Your task to perform on an android device: Open the stopwatch Image 0: 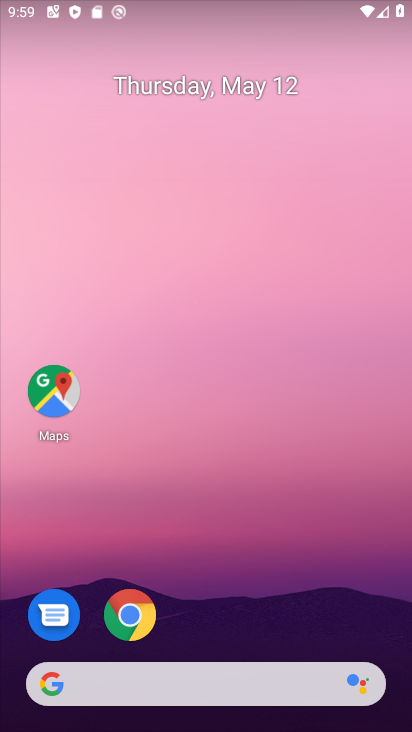
Step 0: drag from (218, 726) to (220, 228)
Your task to perform on an android device: Open the stopwatch Image 1: 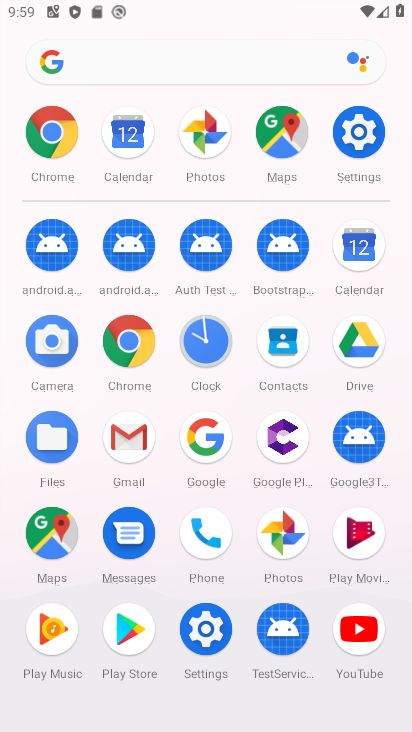
Step 1: click (203, 340)
Your task to perform on an android device: Open the stopwatch Image 2: 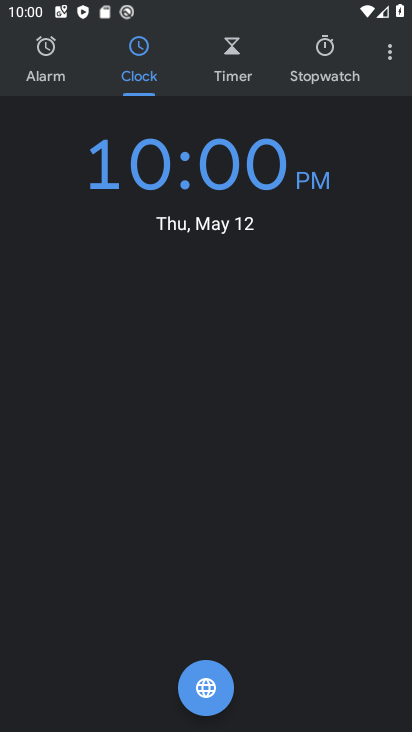
Step 2: click (328, 55)
Your task to perform on an android device: Open the stopwatch Image 3: 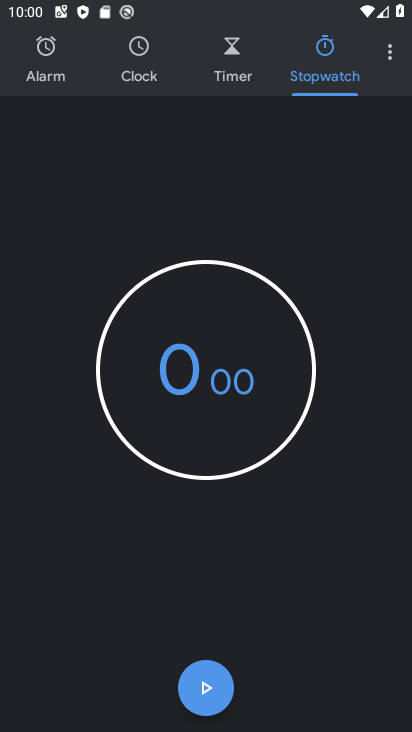
Step 3: task complete